Your task to perform on an android device: turn off priority inbox in the gmail app Image 0: 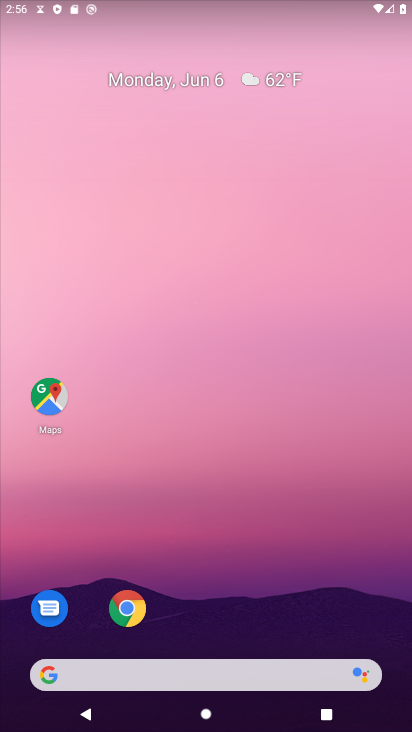
Step 0: drag from (275, 572) to (392, 10)
Your task to perform on an android device: turn off priority inbox in the gmail app Image 1: 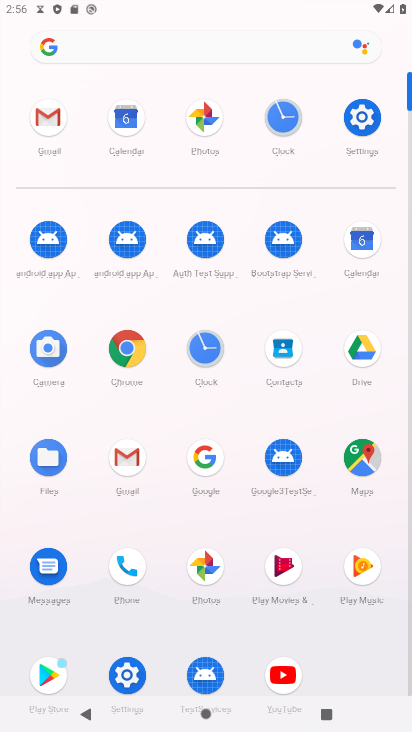
Step 1: click (133, 457)
Your task to perform on an android device: turn off priority inbox in the gmail app Image 2: 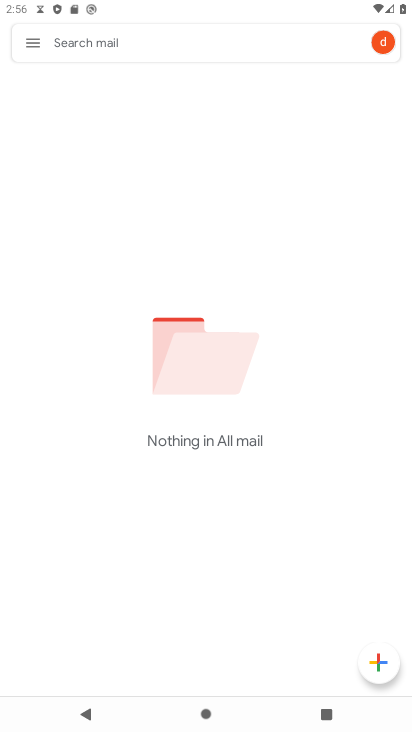
Step 2: click (30, 42)
Your task to perform on an android device: turn off priority inbox in the gmail app Image 3: 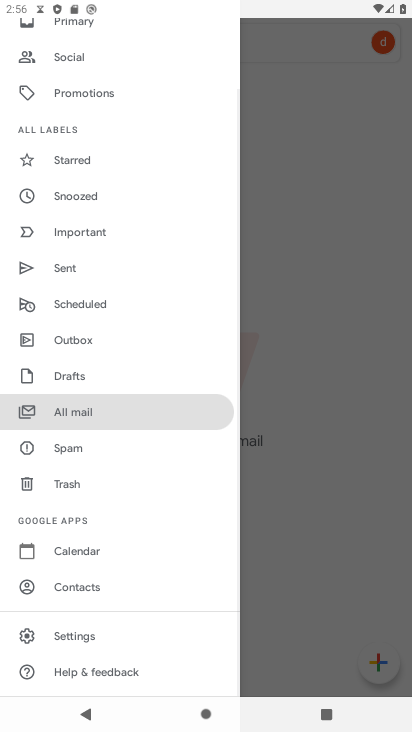
Step 3: click (101, 633)
Your task to perform on an android device: turn off priority inbox in the gmail app Image 4: 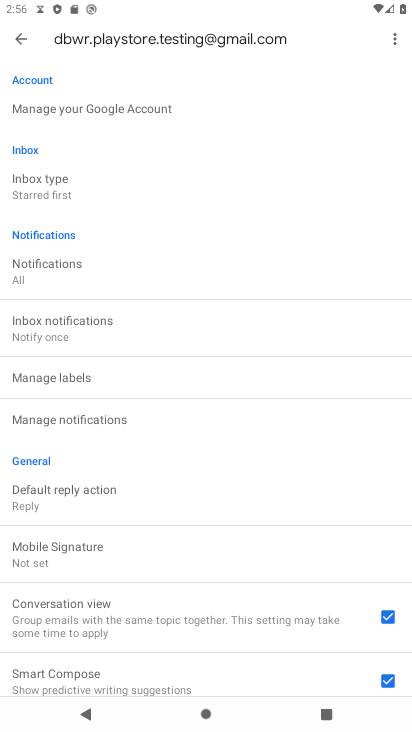
Step 4: click (51, 197)
Your task to perform on an android device: turn off priority inbox in the gmail app Image 5: 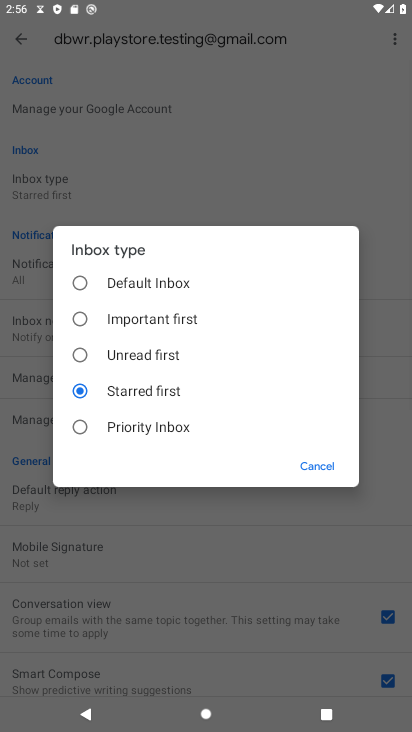
Step 5: click (78, 385)
Your task to perform on an android device: turn off priority inbox in the gmail app Image 6: 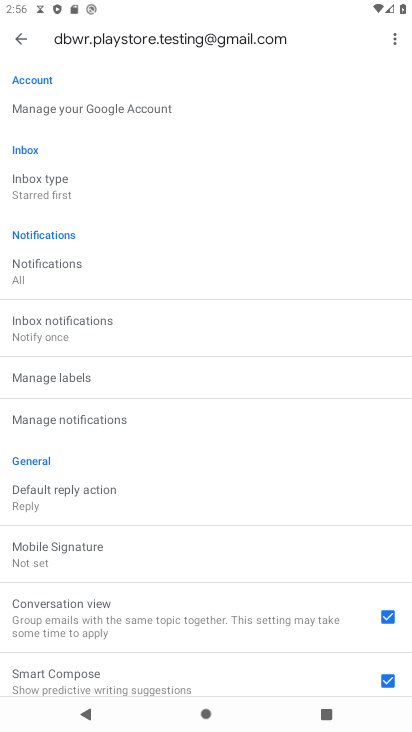
Step 6: task complete